Your task to perform on an android device: turn on the 24-hour format for clock Image 0: 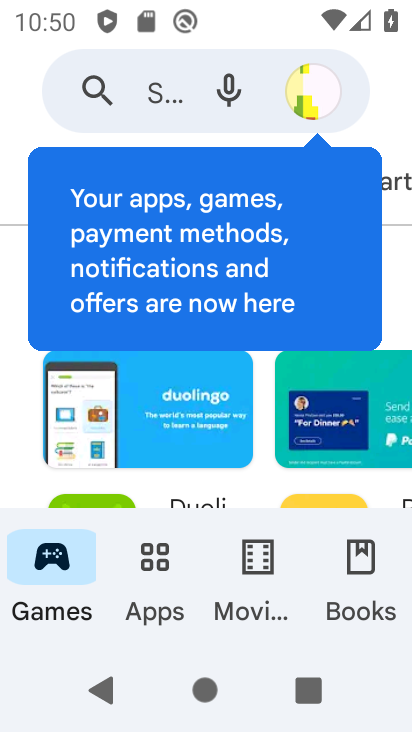
Step 0: press home button
Your task to perform on an android device: turn on the 24-hour format for clock Image 1: 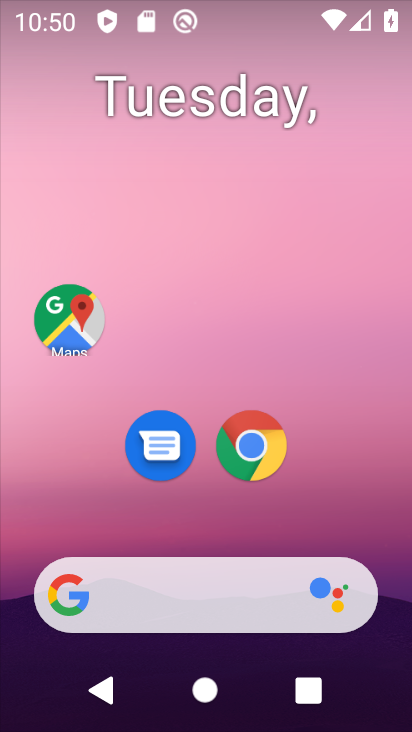
Step 1: drag from (307, 520) to (343, 14)
Your task to perform on an android device: turn on the 24-hour format for clock Image 2: 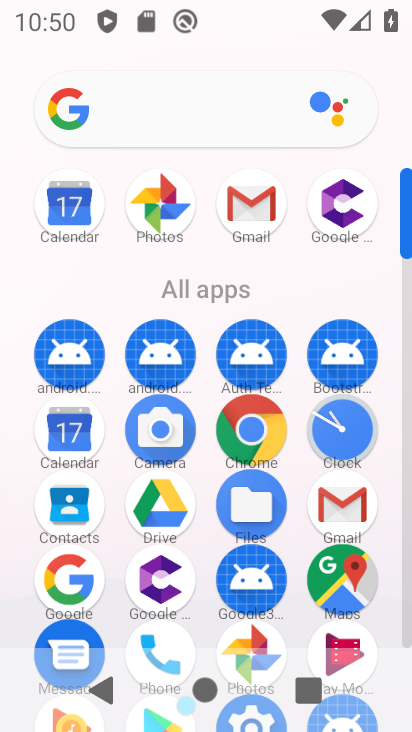
Step 2: click (348, 421)
Your task to perform on an android device: turn on the 24-hour format for clock Image 3: 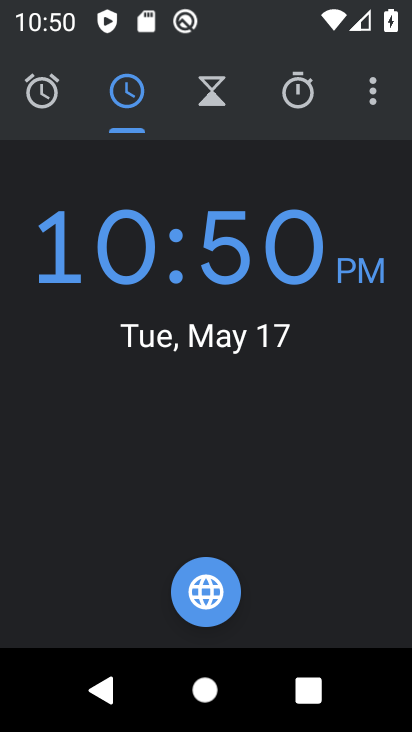
Step 3: click (371, 93)
Your task to perform on an android device: turn on the 24-hour format for clock Image 4: 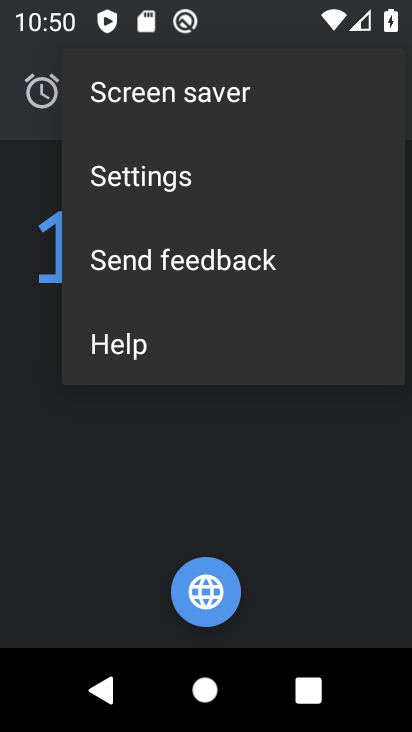
Step 4: click (191, 180)
Your task to perform on an android device: turn on the 24-hour format for clock Image 5: 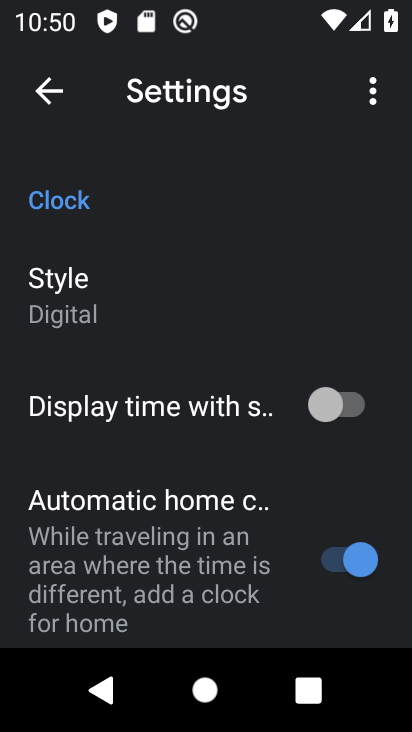
Step 5: drag from (208, 541) to (287, 203)
Your task to perform on an android device: turn on the 24-hour format for clock Image 6: 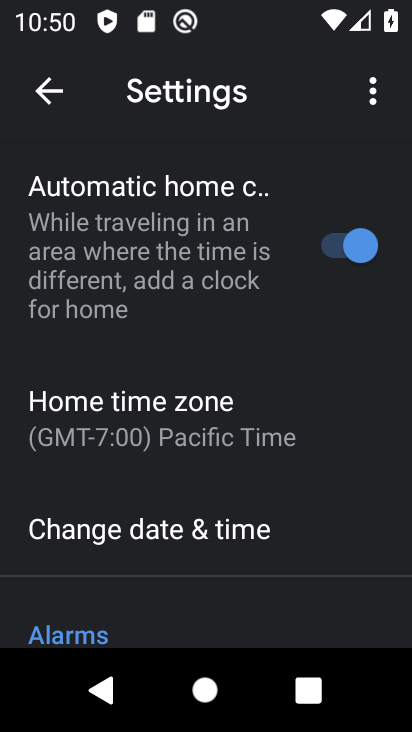
Step 6: click (161, 547)
Your task to perform on an android device: turn on the 24-hour format for clock Image 7: 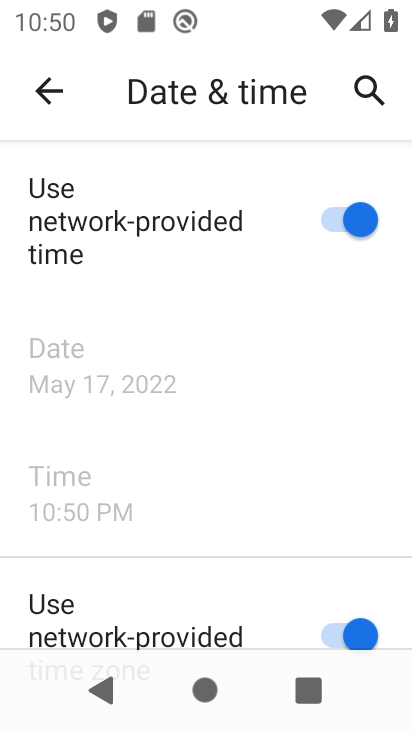
Step 7: drag from (171, 595) to (294, 214)
Your task to perform on an android device: turn on the 24-hour format for clock Image 8: 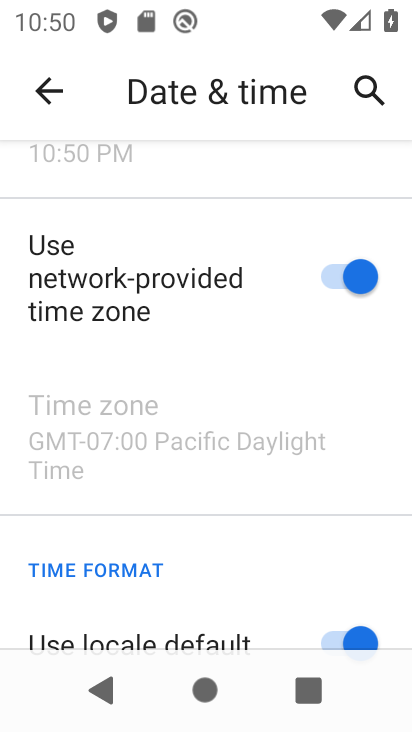
Step 8: drag from (237, 555) to (254, 297)
Your task to perform on an android device: turn on the 24-hour format for clock Image 9: 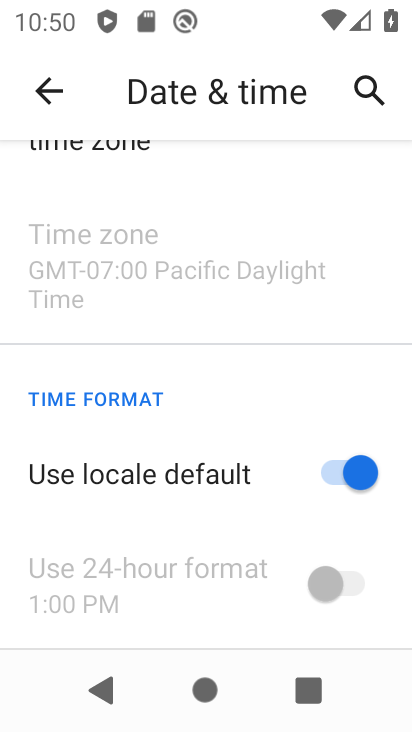
Step 9: click (356, 487)
Your task to perform on an android device: turn on the 24-hour format for clock Image 10: 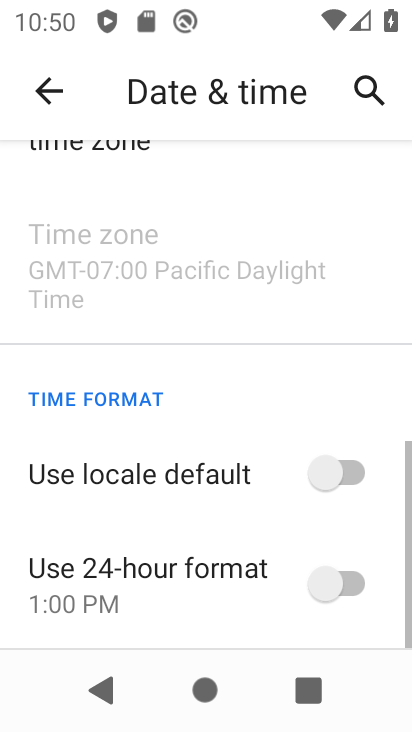
Step 10: click (347, 580)
Your task to perform on an android device: turn on the 24-hour format for clock Image 11: 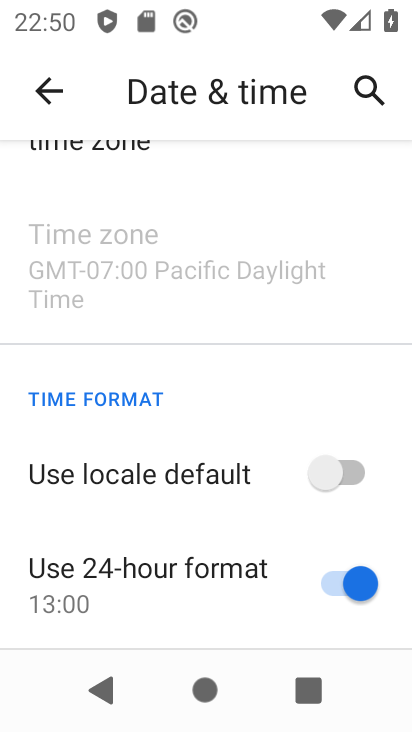
Step 11: task complete